Your task to perform on an android device: visit the assistant section in the google photos Image 0: 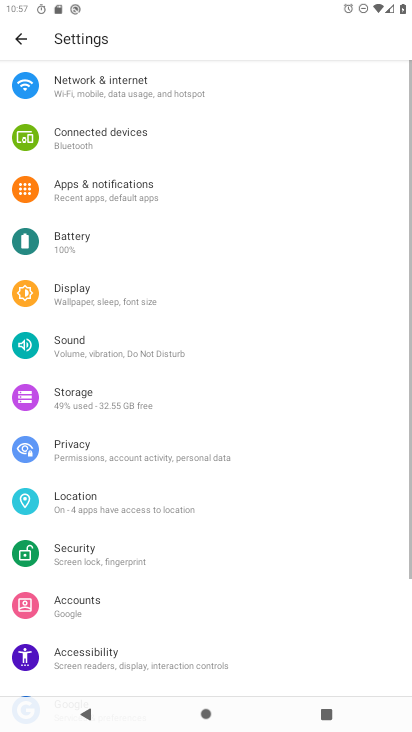
Step 0: press home button
Your task to perform on an android device: visit the assistant section in the google photos Image 1: 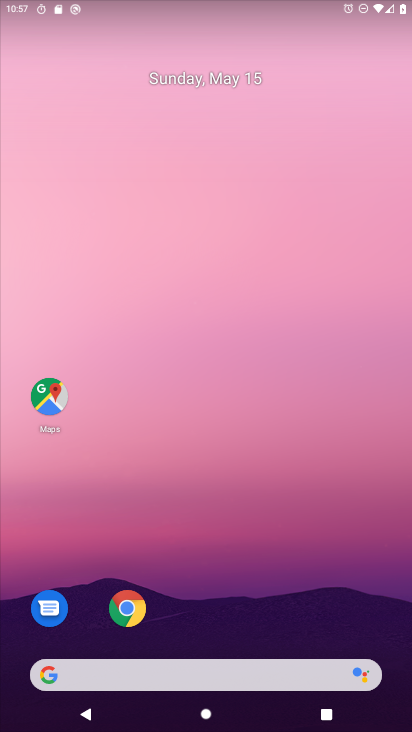
Step 1: drag from (360, 581) to (330, 110)
Your task to perform on an android device: visit the assistant section in the google photos Image 2: 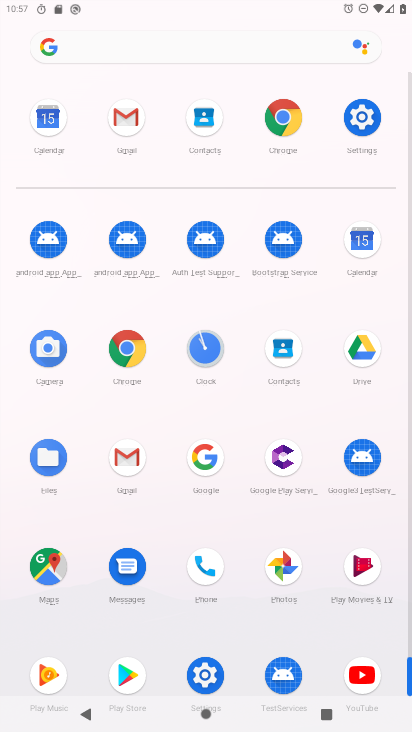
Step 2: click (288, 560)
Your task to perform on an android device: visit the assistant section in the google photos Image 3: 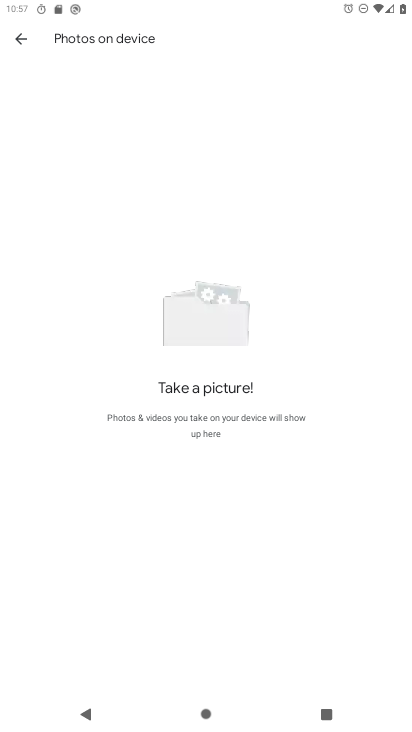
Step 3: click (21, 48)
Your task to perform on an android device: visit the assistant section in the google photos Image 4: 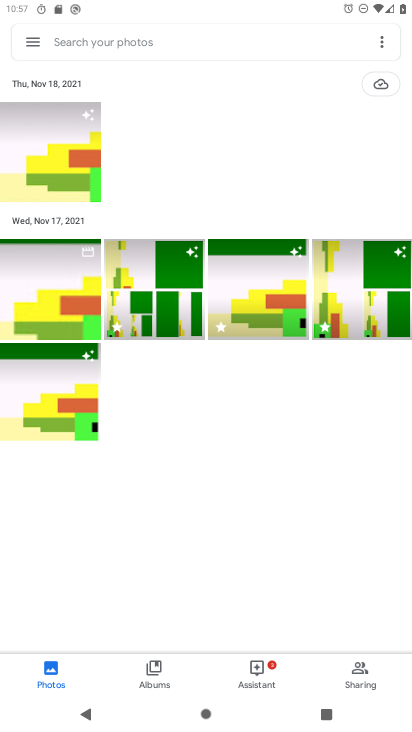
Step 4: click (248, 674)
Your task to perform on an android device: visit the assistant section in the google photos Image 5: 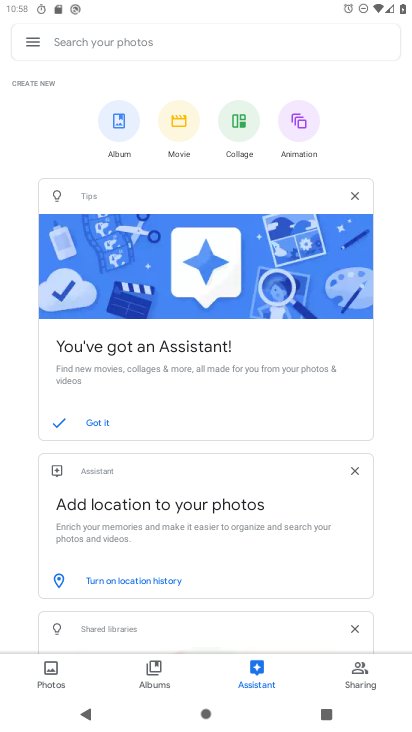
Step 5: task complete